Your task to perform on an android device: snooze an email in the gmail app Image 0: 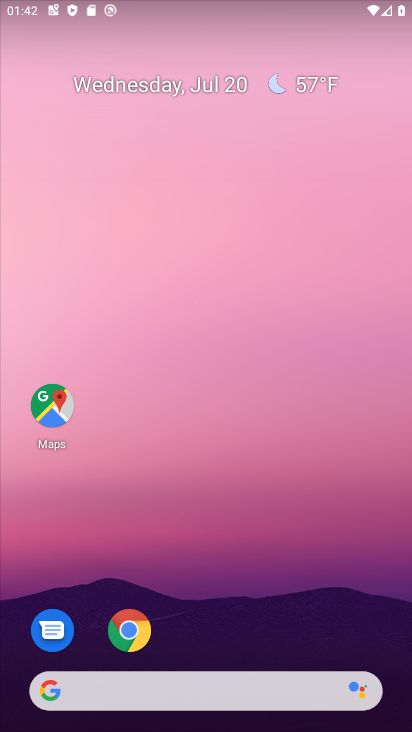
Step 0: drag from (270, 573) to (222, 72)
Your task to perform on an android device: snooze an email in the gmail app Image 1: 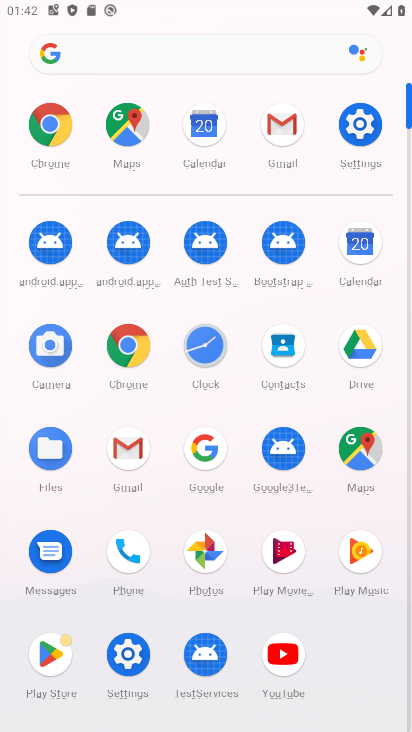
Step 1: click (275, 115)
Your task to perform on an android device: snooze an email in the gmail app Image 2: 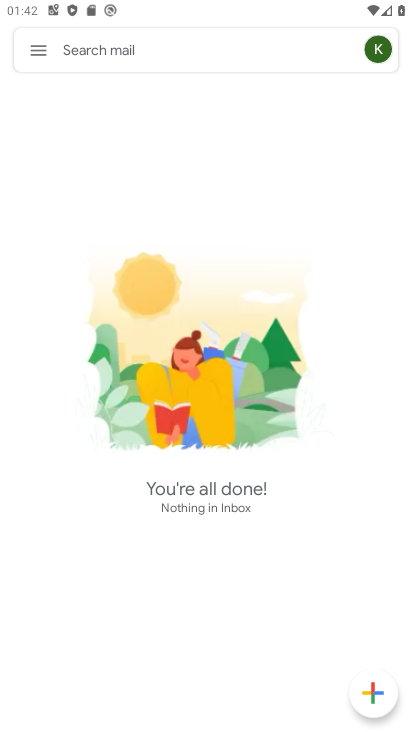
Step 2: click (26, 53)
Your task to perform on an android device: snooze an email in the gmail app Image 3: 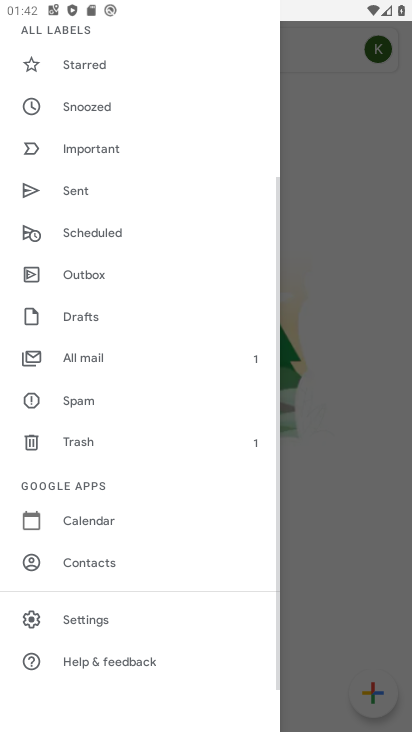
Step 3: drag from (115, 118) to (125, 383)
Your task to perform on an android device: snooze an email in the gmail app Image 4: 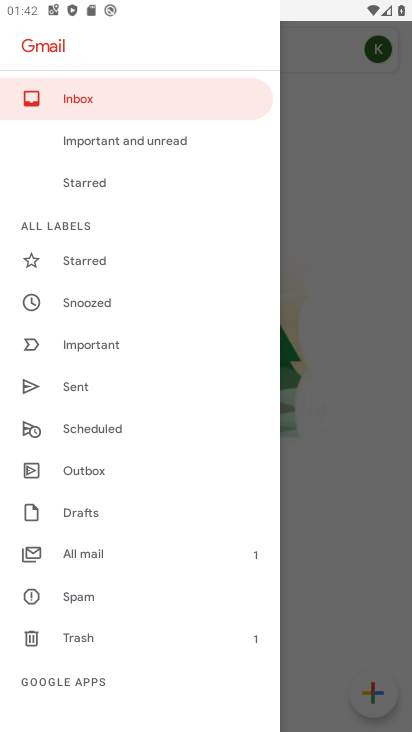
Step 4: click (80, 559)
Your task to perform on an android device: snooze an email in the gmail app Image 5: 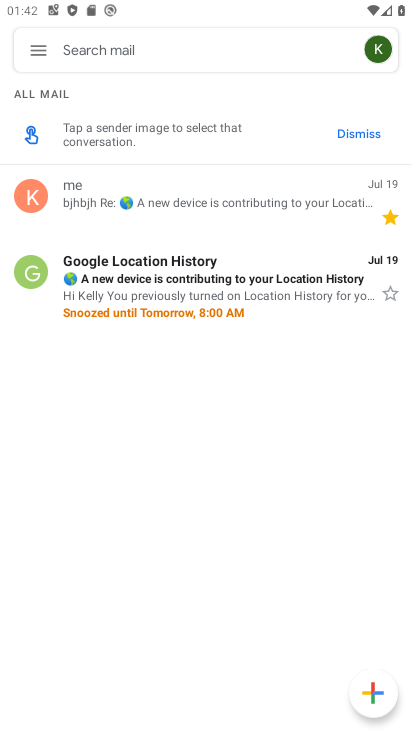
Step 5: click (202, 279)
Your task to perform on an android device: snooze an email in the gmail app Image 6: 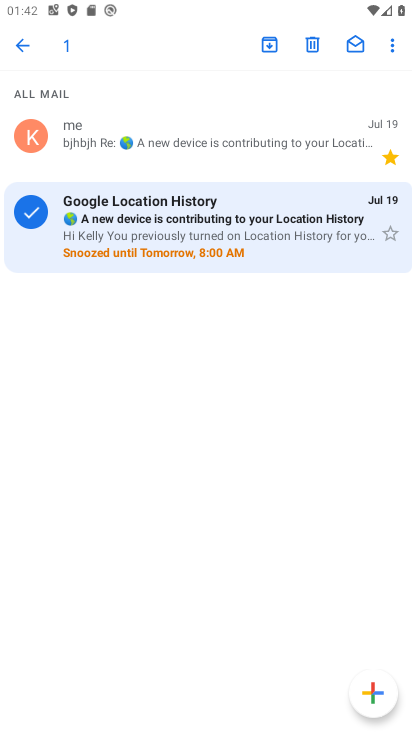
Step 6: click (391, 44)
Your task to perform on an android device: snooze an email in the gmail app Image 7: 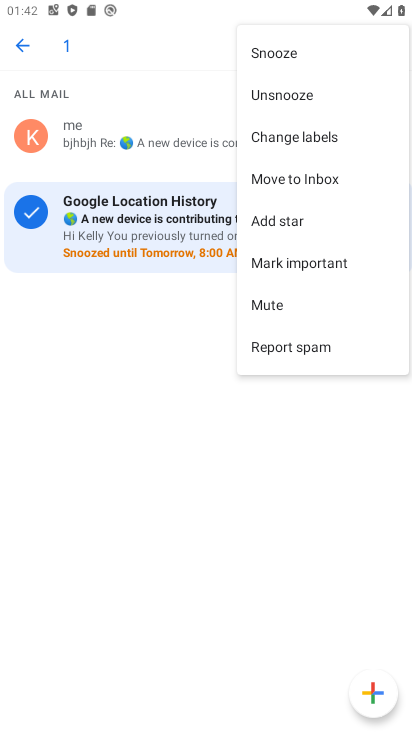
Step 7: click (300, 49)
Your task to perform on an android device: snooze an email in the gmail app Image 8: 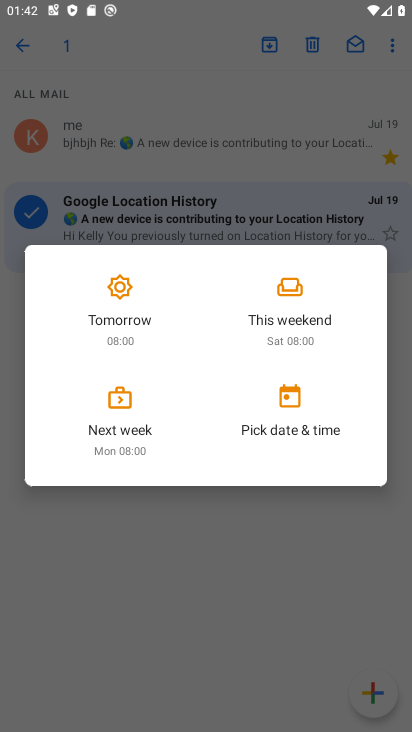
Step 8: click (135, 302)
Your task to perform on an android device: snooze an email in the gmail app Image 9: 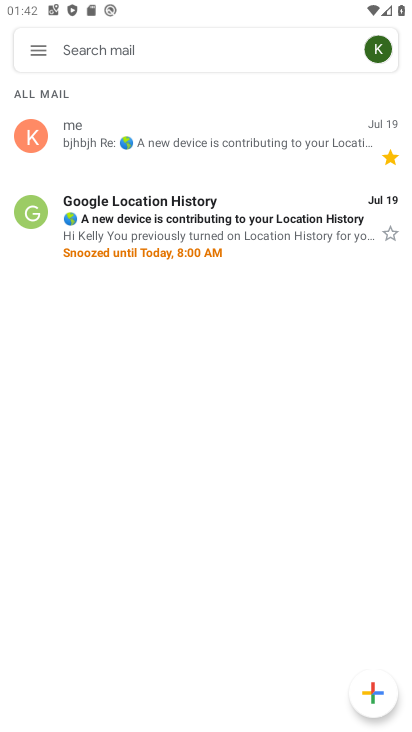
Step 9: task complete